Your task to perform on an android device: change the clock style Image 0: 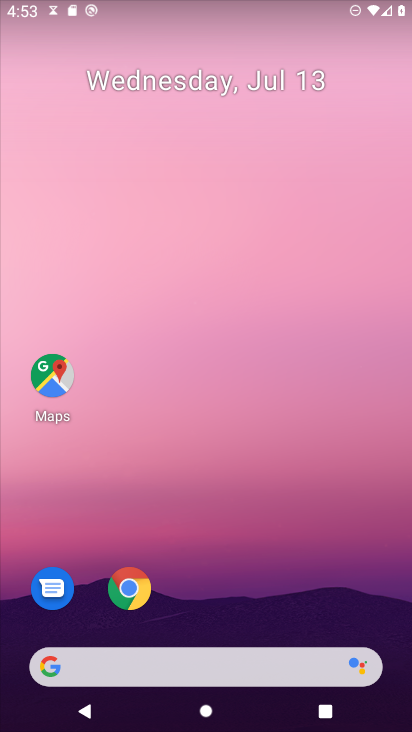
Step 0: click (229, 229)
Your task to perform on an android device: change the clock style Image 1: 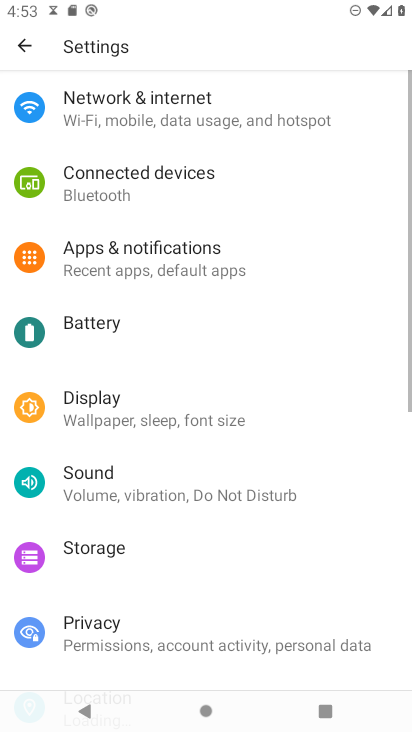
Step 1: click (32, 45)
Your task to perform on an android device: change the clock style Image 2: 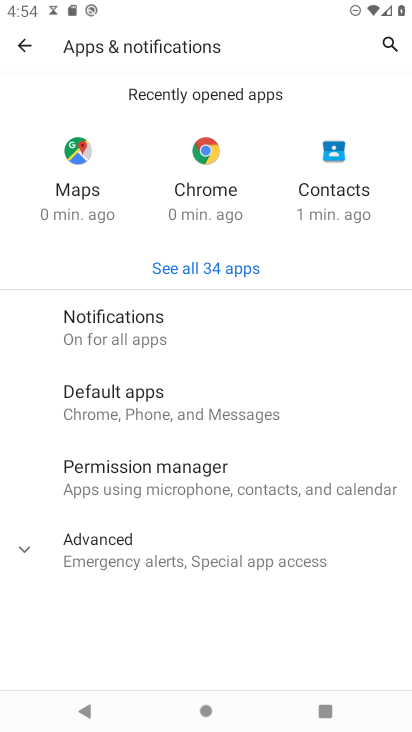
Step 2: click (16, 31)
Your task to perform on an android device: change the clock style Image 3: 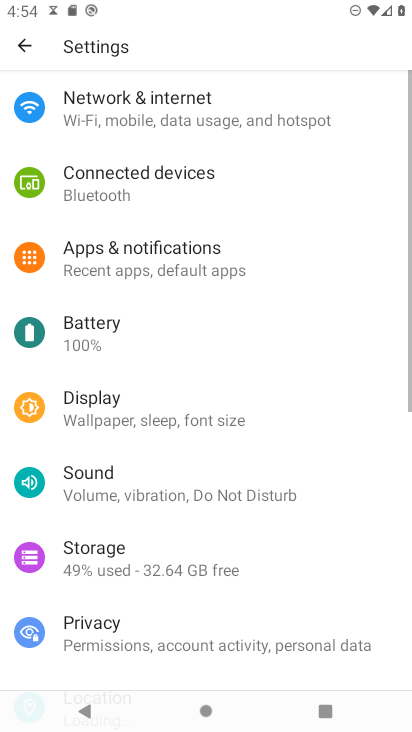
Step 3: press back button
Your task to perform on an android device: change the clock style Image 4: 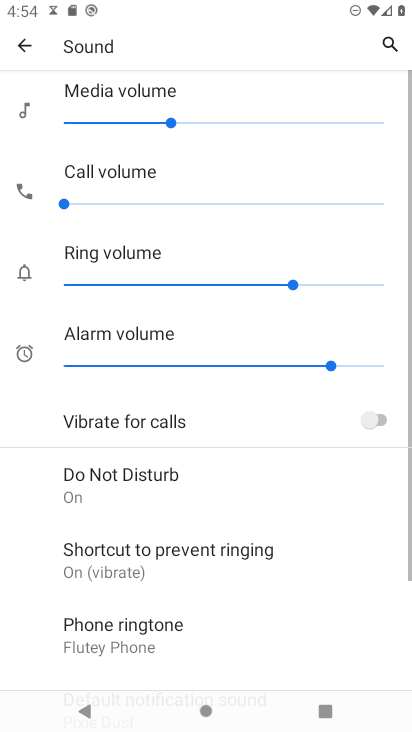
Step 4: press home button
Your task to perform on an android device: change the clock style Image 5: 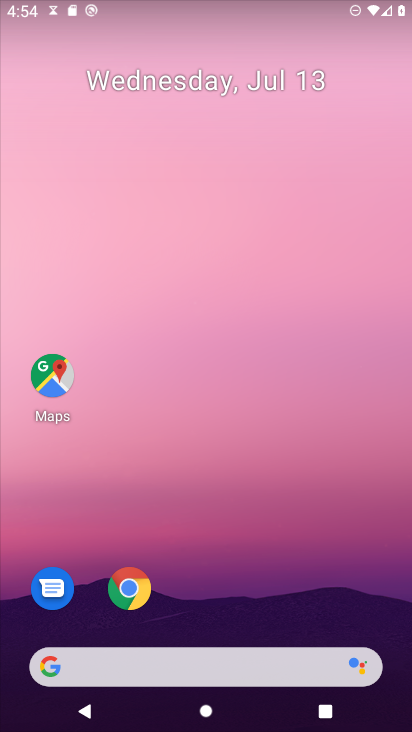
Step 5: drag from (266, 505) to (189, 71)
Your task to perform on an android device: change the clock style Image 6: 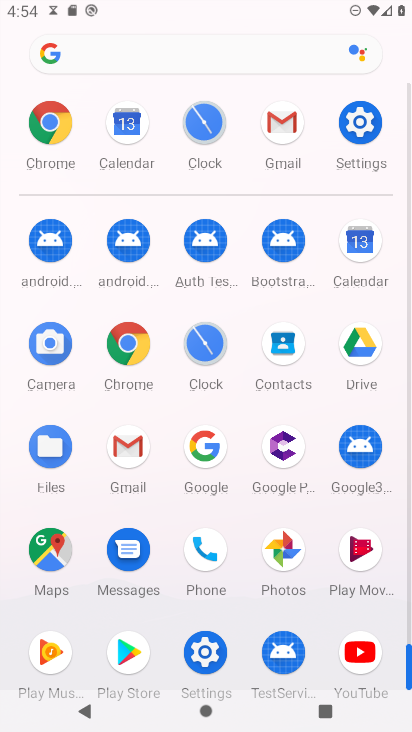
Step 6: click (209, 329)
Your task to perform on an android device: change the clock style Image 7: 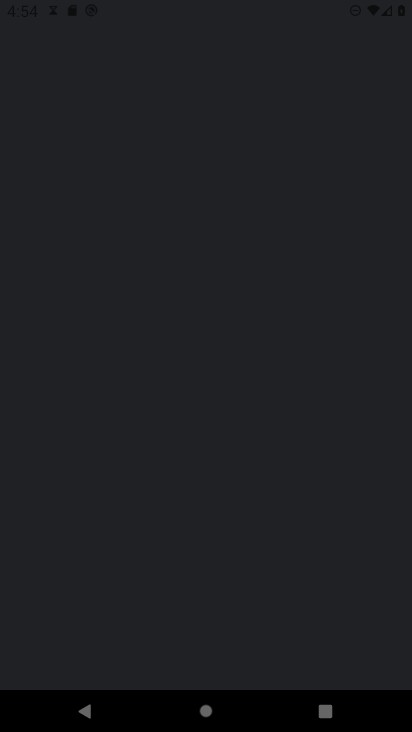
Step 7: click (212, 334)
Your task to perform on an android device: change the clock style Image 8: 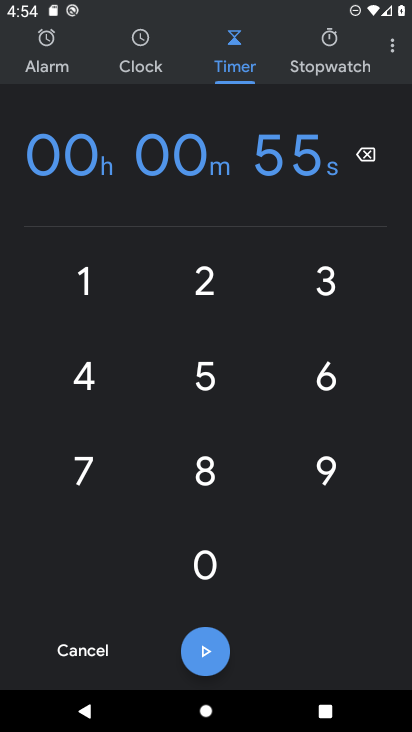
Step 8: click (213, 336)
Your task to perform on an android device: change the clock style Image 9: 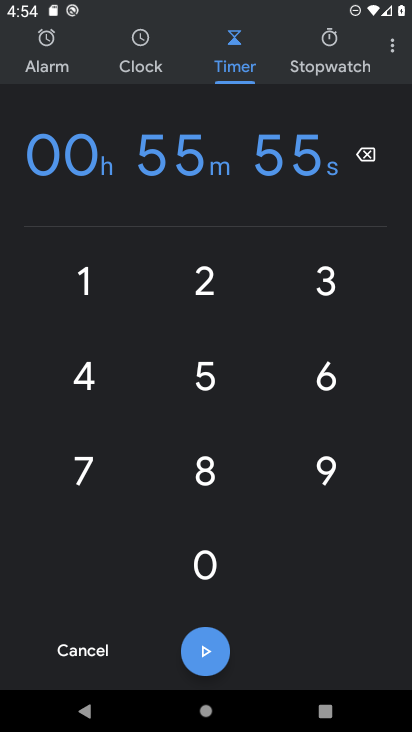
Step 9: click (388, 42)
Your task to perform on an android device: change the clock style Image 10: 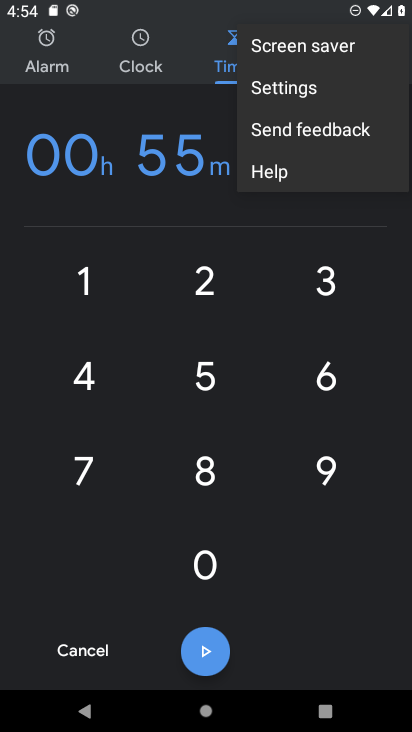
Step 10: click (278, 87)
Your task to perform on an android device: change the clock style Image 11: 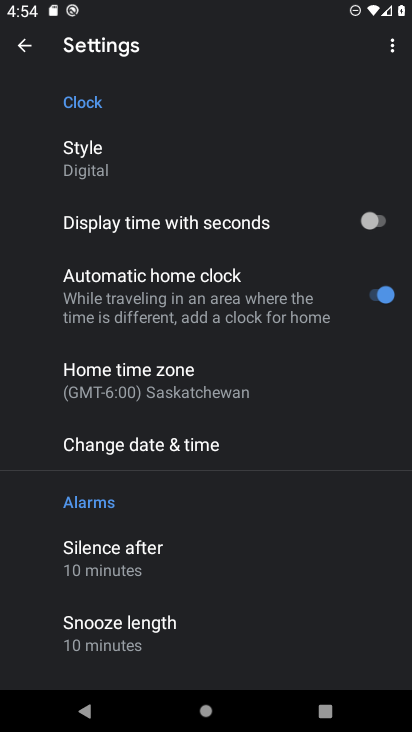
Step 11: click (92, 165)
Your task to perform on an android device: change the clock style Image 12: 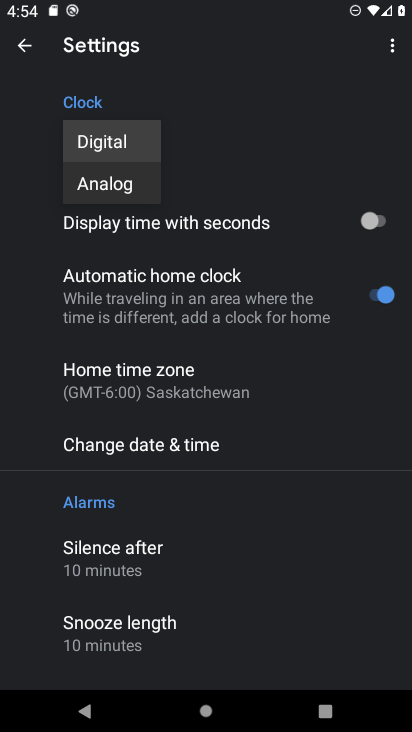
Step 12: click (105, 147)
Your task to perform on an android device: change the clock style Image 13: 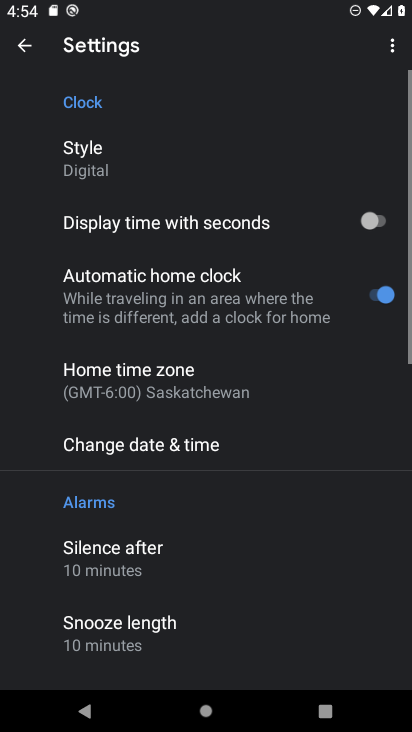
Step 13: task complete